Your task to perform on an android device: What's the weather going to be this weekend? Image 0: 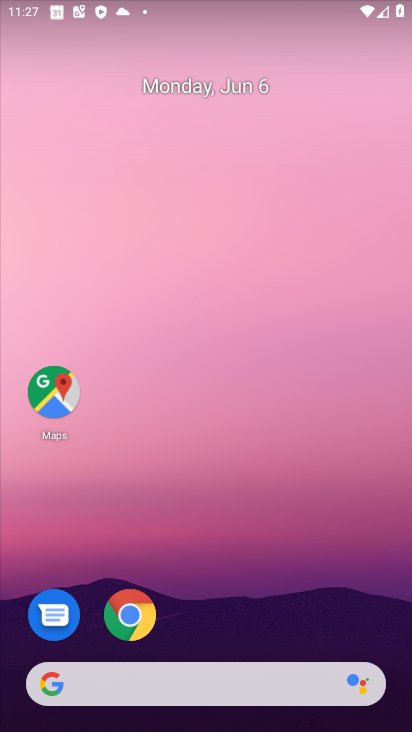
Step 0: drag from (257, 639) to (193, 0)
Your task to perform on an android device: What's the weather going to be this weekend? Image 1: 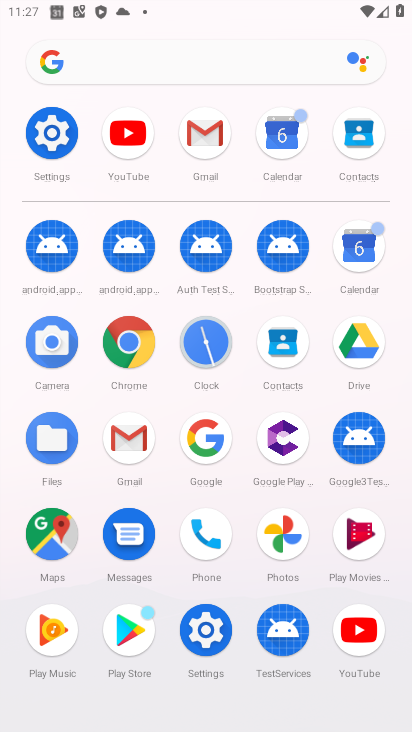
Step 1: click (375, 157)
Your task to perform on an android device: What's the weather going to be this weekend? Image 2: 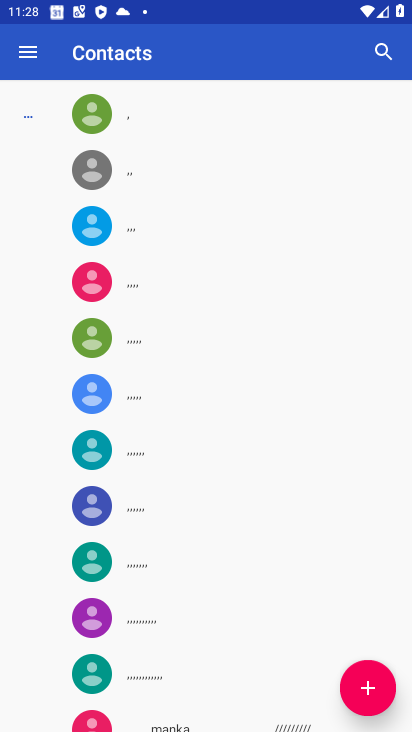
Step 2: task complete